Your task to perform on an android device: Do I have any events tomorrow? Image 0: 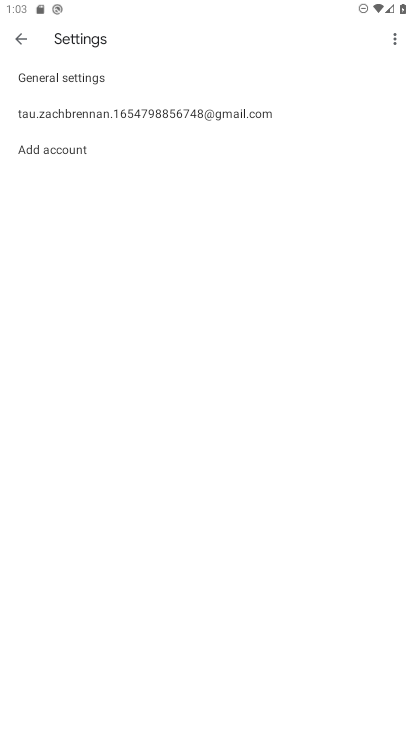
Step 0: press home button
Your task to perform on an android device: Do I have any events tomorrow? Image 1: 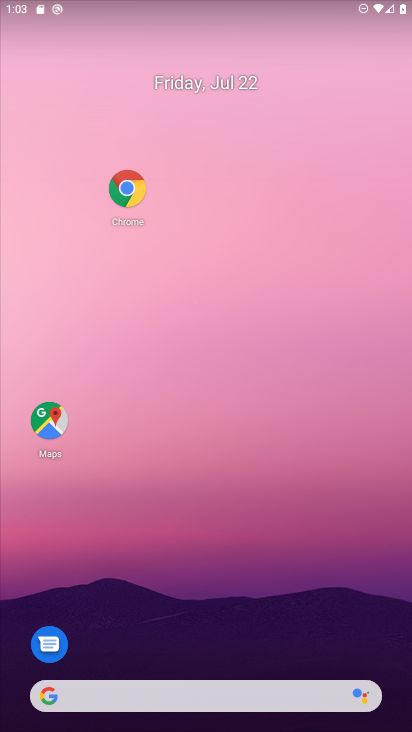
Step 1: click (202, 89)
Your task to perform on an android device: Do I have any events tomorrow? Image 2: 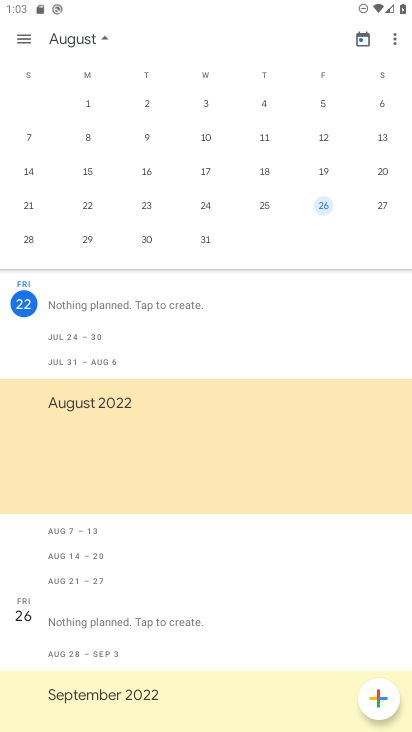
Step 2: drag from (17, 206) to (333, 237)
Your task to perform on an android device: Do I have any events tomorrow? Image 3: 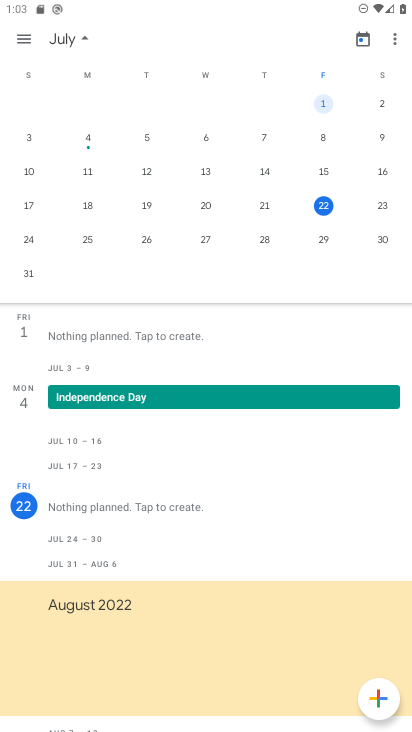
Step 3: click (381, 207)
Your task to perform on an android device: Do I have any events tomorrow? Image 4: 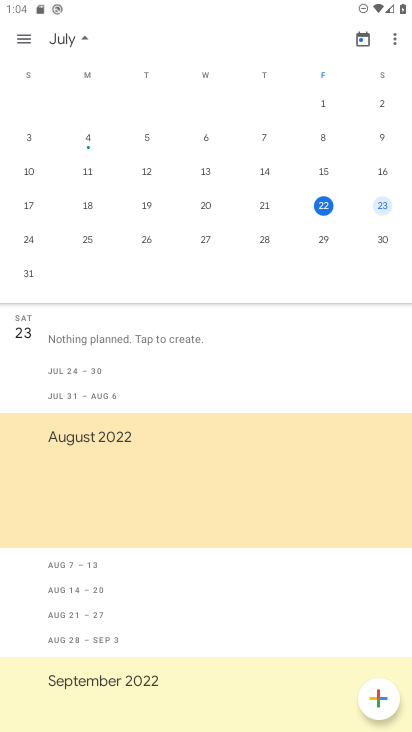
Step 4: task complete